Your task to perform on an android device: open app "VLC for Android" (install if not already installed) Image 0: 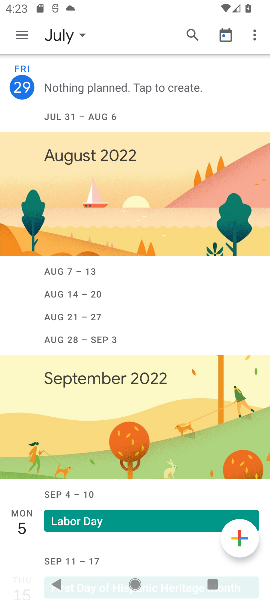
Step 0: press home button
Your task to perform on an android device: open app "VLC for Android" (install if not already installed) Image 1: 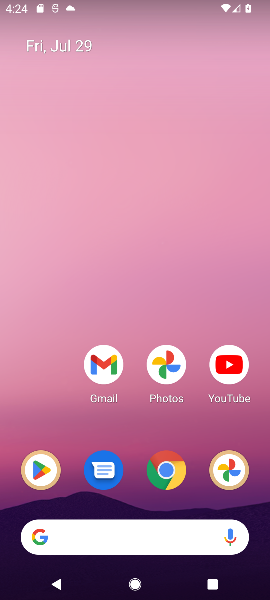
Step 1: click (41, 479)
Your task to perform on an android device: open app "VLC for Android" (install if not already installed) Image 2: 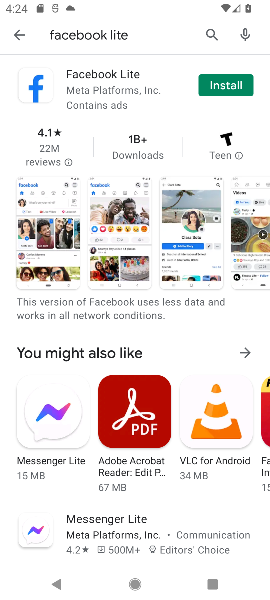
Step 2: click (213, 36)
Your task to perform on an android device: open app "VLC for Android" (install if not already installed) Image 3: 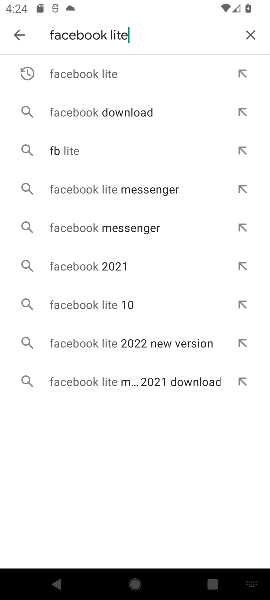
Step 3: click (246, 32)
Your task to perform on an android device: open app "VLC for Android" (install if not already installed) Image 4: 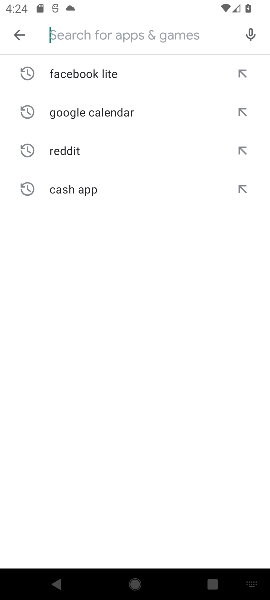
Step 4: type "VLC for Android"
Your task to perform on an android device: open app "VLC for Android" (install if not already installed) Image 5: 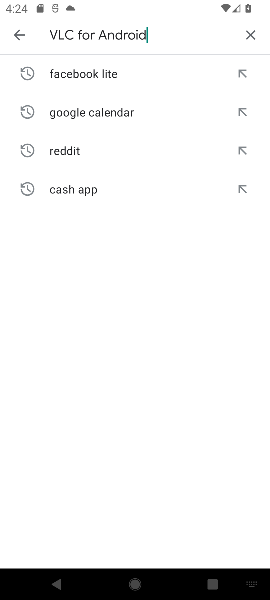
Step 5: type ""
Your task to perform on an android device: open app "VLC for Android" (install if not already installed) Image 6: 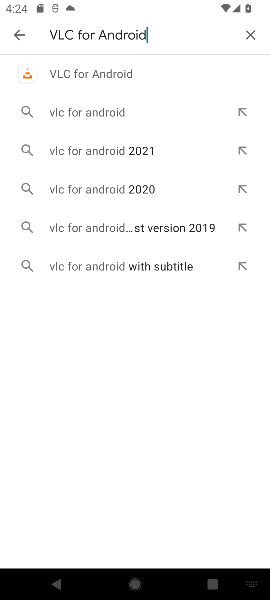
Step 6: click (107, 65)
Your task to perform on an android device: open app "VLC for Android" (install if not already installed) Image 7: 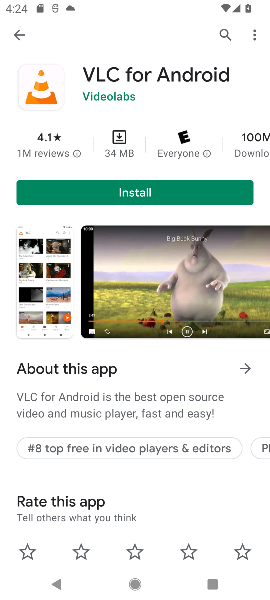
Step 7: click (124, 198)
Your task to perform on an android device: open app "VLC for Android" (install if not already installed) Image 8: 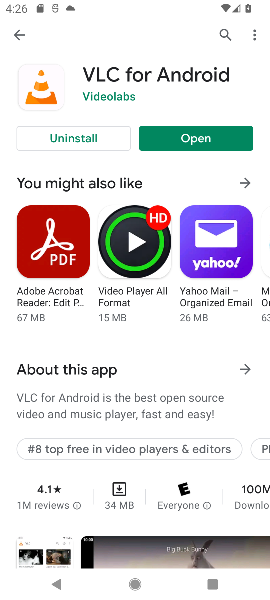
Step 8: click (210, 138)
Your task to perform on an android device: open app "VLC for Android" (install if not already installed) Image 9: 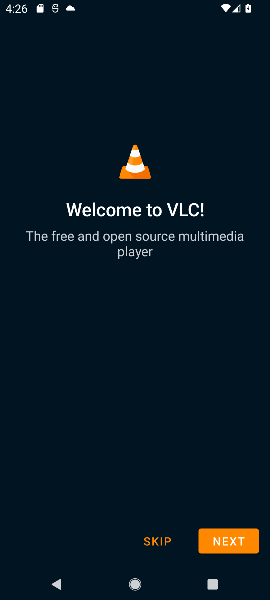
Step 9: task complete